Your task to perform on an android device: What's on my calendar tomorrow? Image 0: 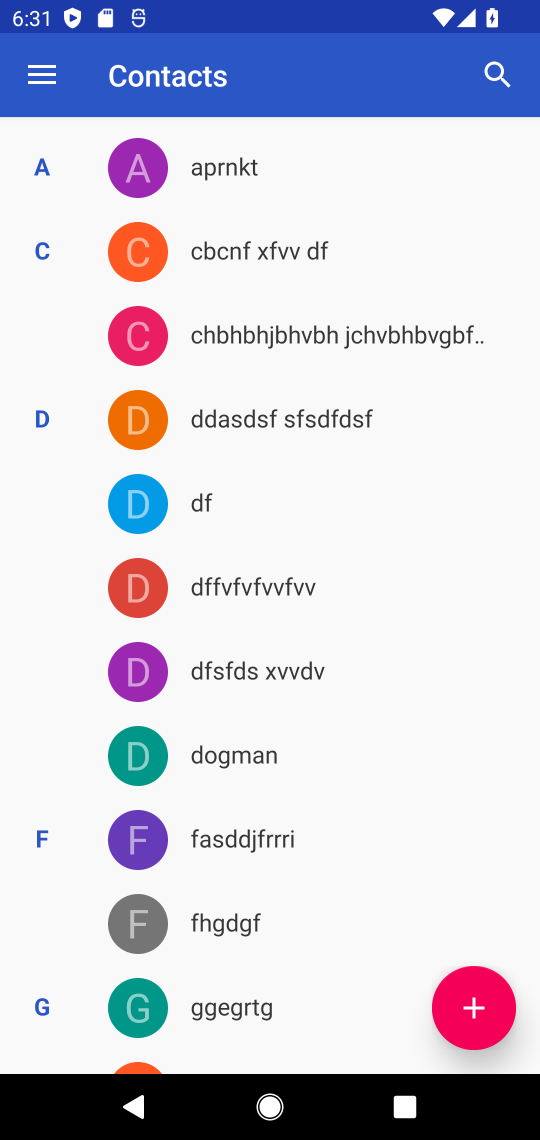
Step 0: press home button
Your task to perform on an android device: What's on my calendar tomorrow? Image 1: 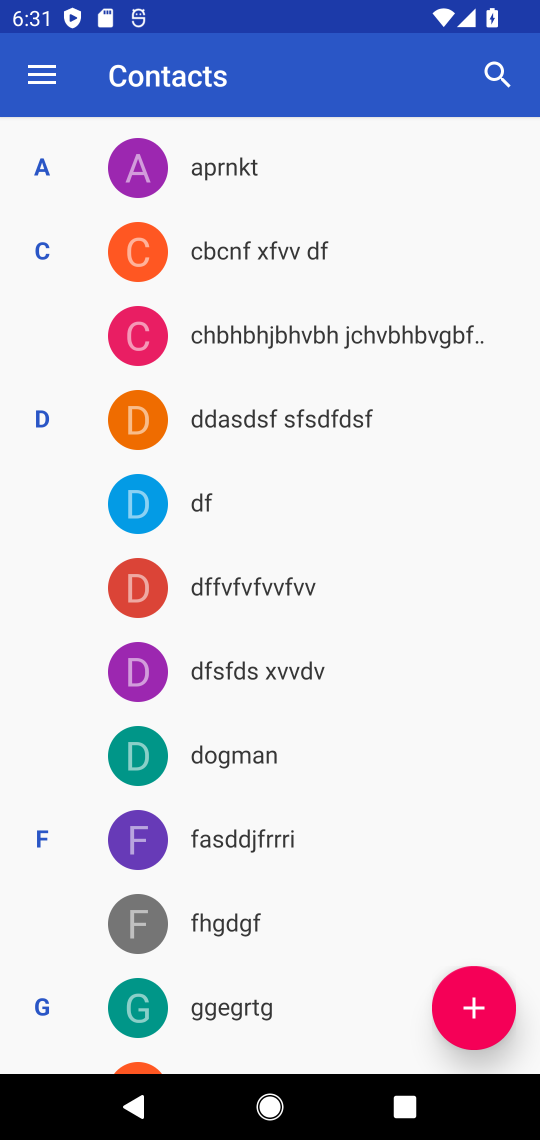
Step 1: press home button
Your task to perform on an android device: What's on my calendar tomorrow? Image 2: 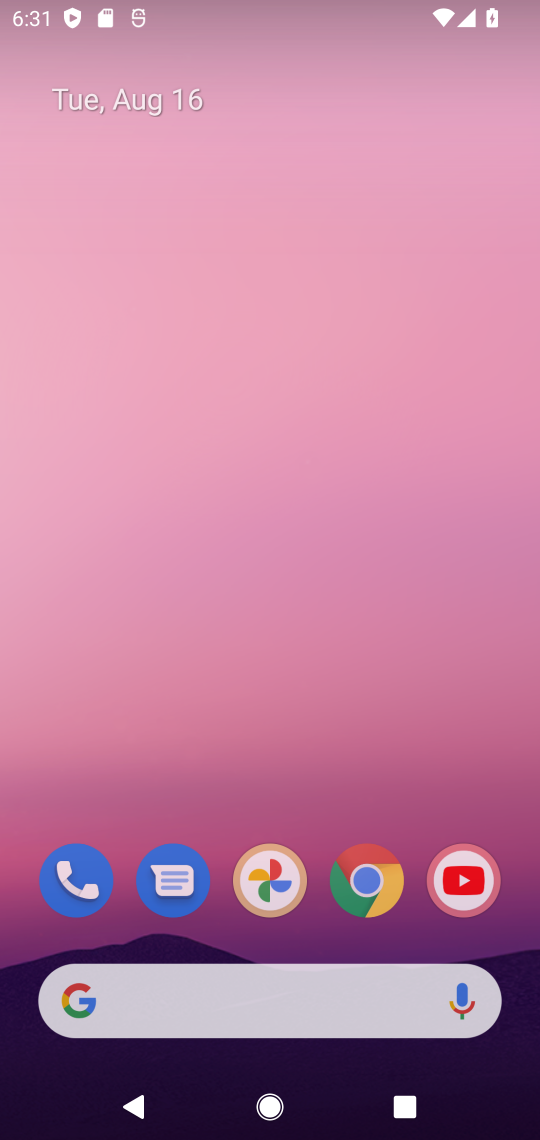
Step 2: press home button
Your task to perform on an android device: What's on my calendar tomorrow? Image 3: 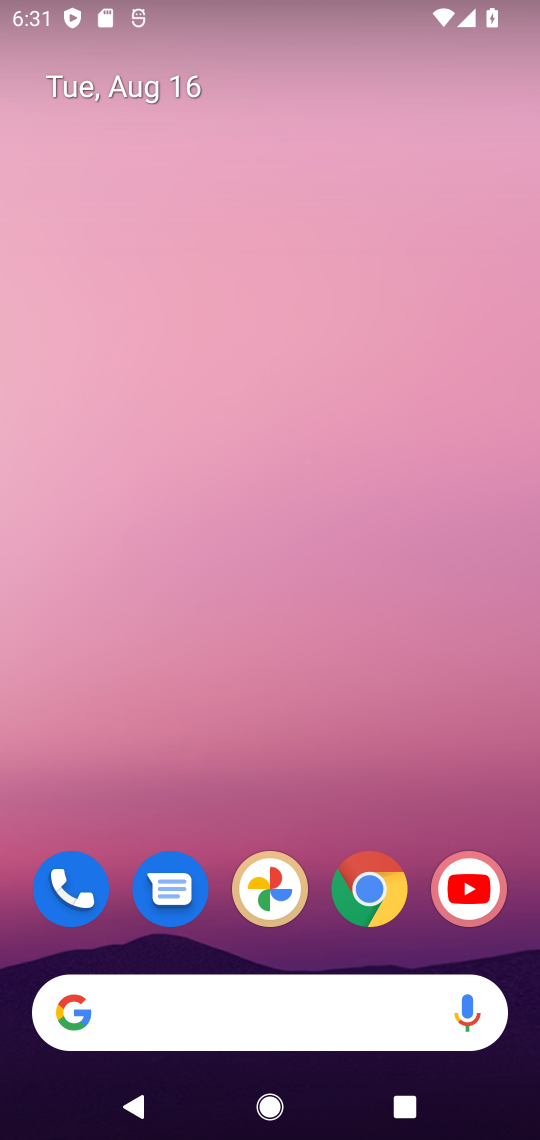
Step 3: click (162, 99)
Your task to perform on an android device: What's on my calendar tomorrow? Image 4: 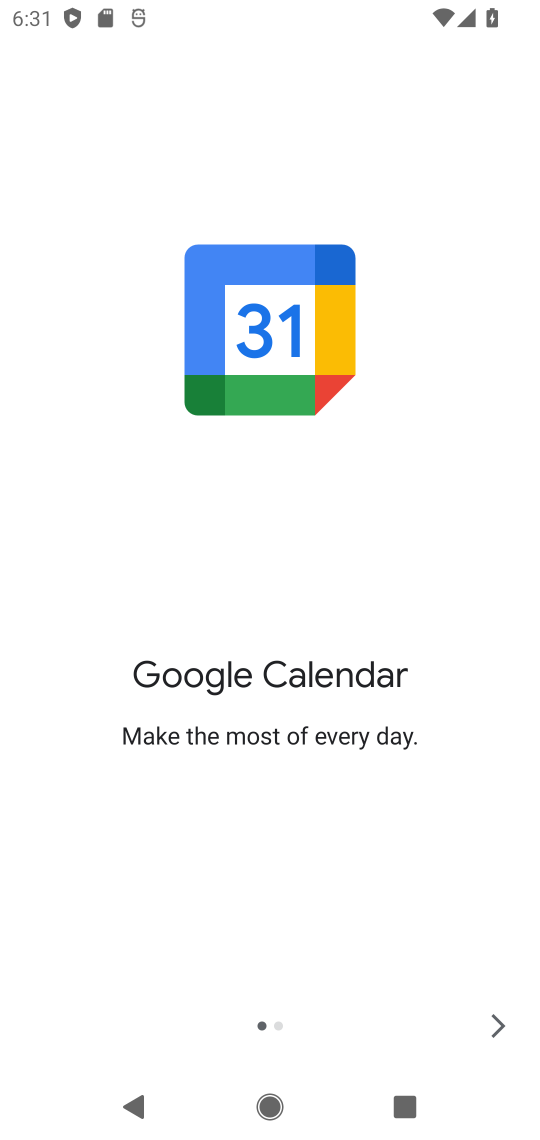
Step 4: click (503, 1035)
Your task to perform on an android device: What's on my calendar tomorrow? Image 5: 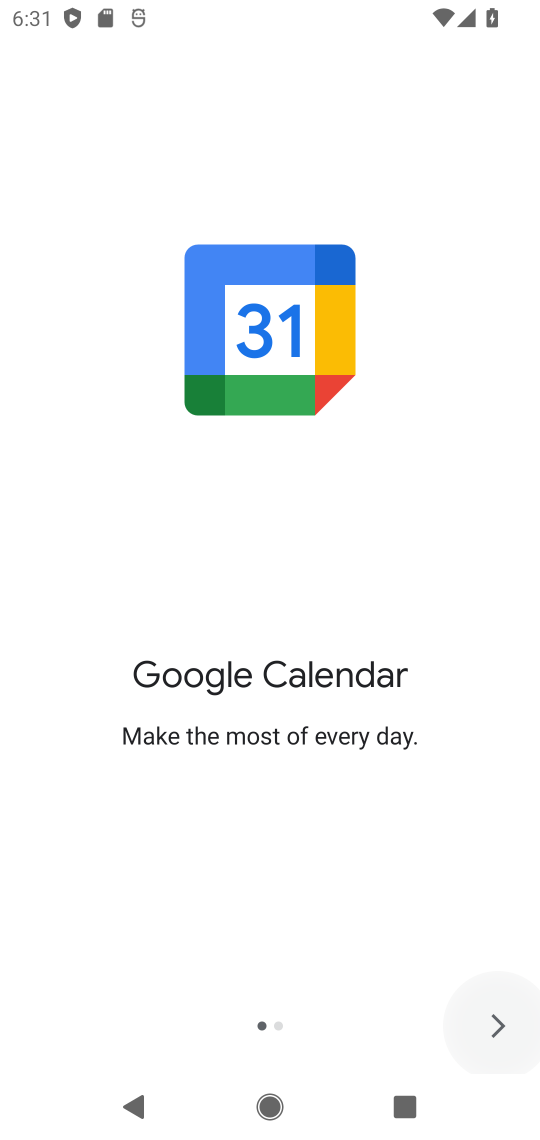
Step 5: click (503, 1035)
Your task to perform on an android device: What's on my calendar tomorrow? Image 6: 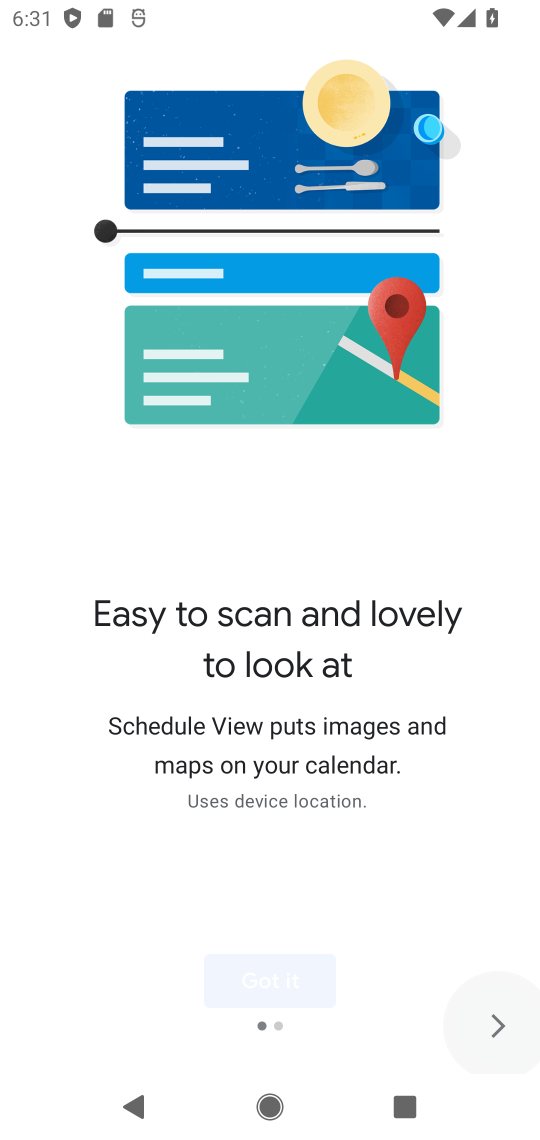
Step 6: click (503, 1035)
Your task to perform on an android device: What's on my calendar tomorrow? Image 7: 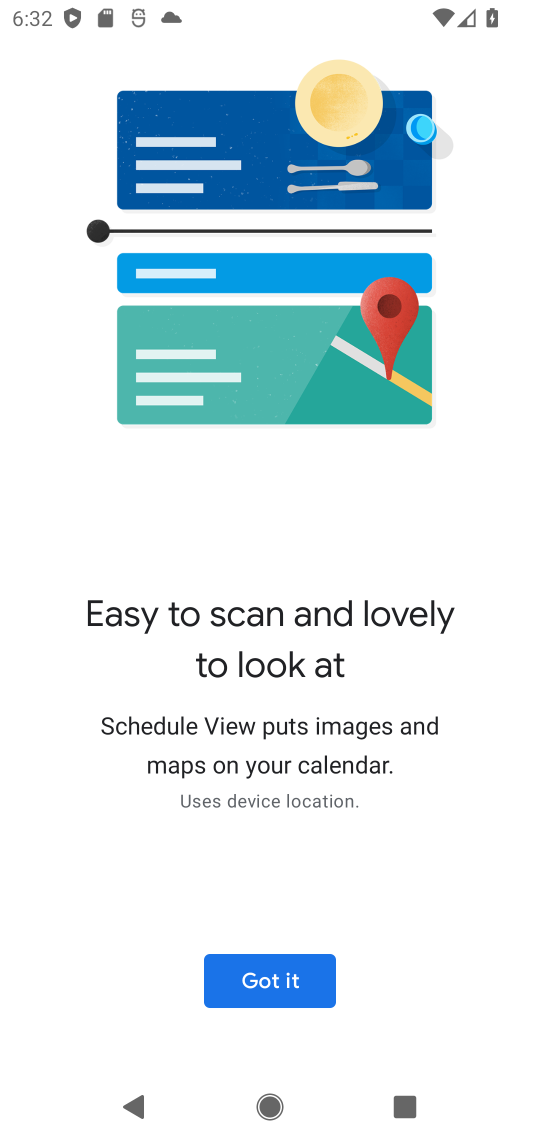
Step 7: click (281, 976)
Your task to perform on an android device: What's on my calendar tomorrow? Image 8: 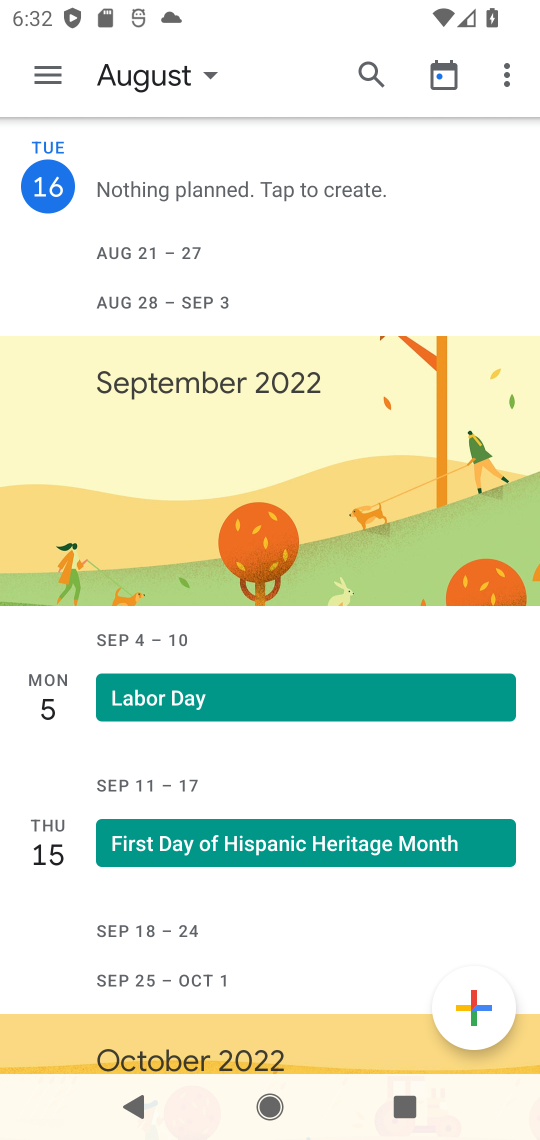
Step 8: click (163, 81)
Your task to perform on an android device: What's on my calendar tomorrow? Image 9: 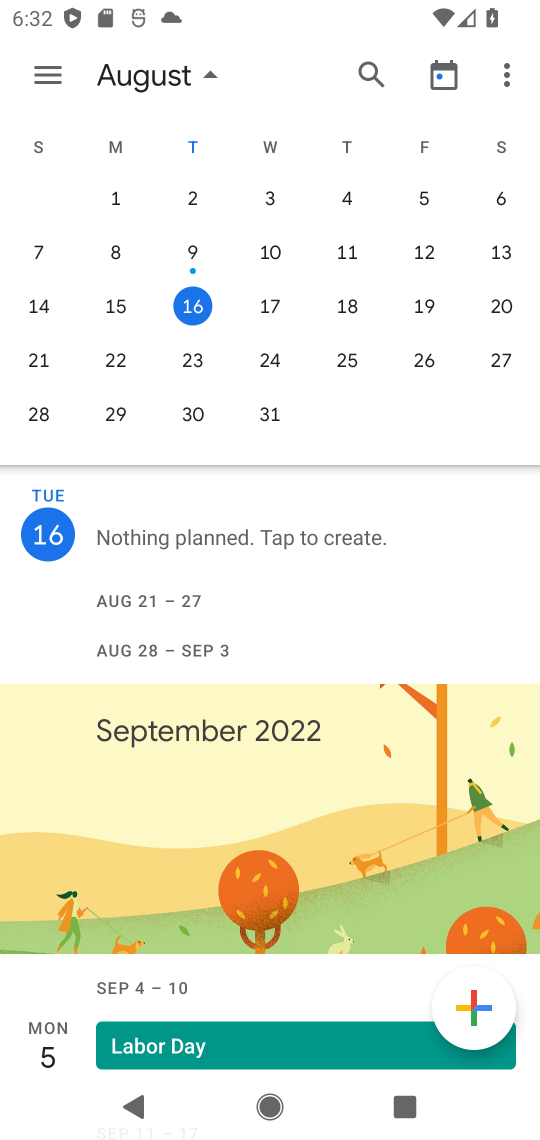
Step 9: click (284, 300)
Your task to perform on an android device: What's on my calendar tomorrow? Image 10: 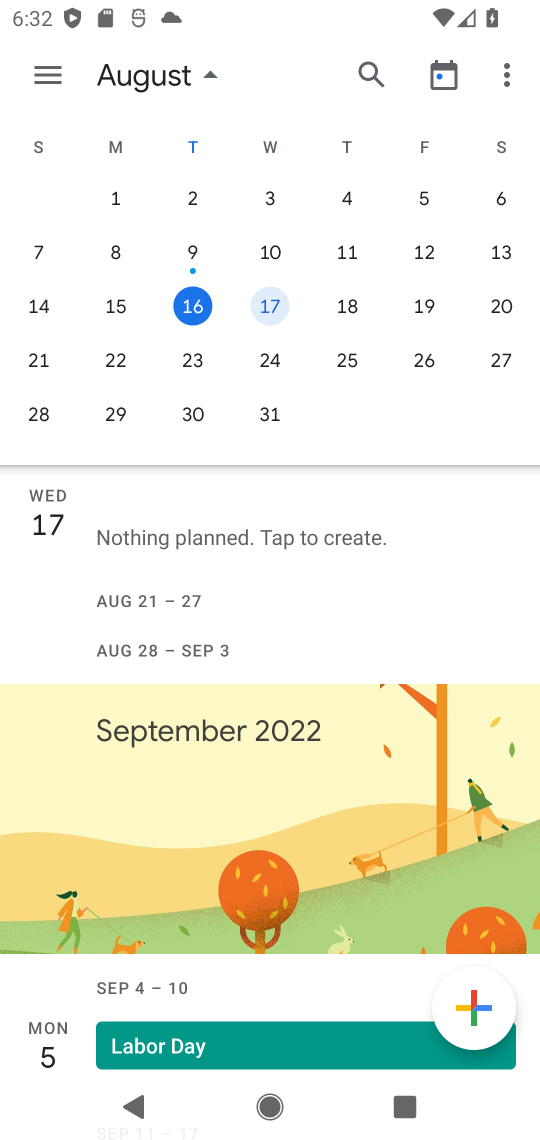
Step 10: task complete